Your task to perform on an android device: Open the Google play store app Image 0: 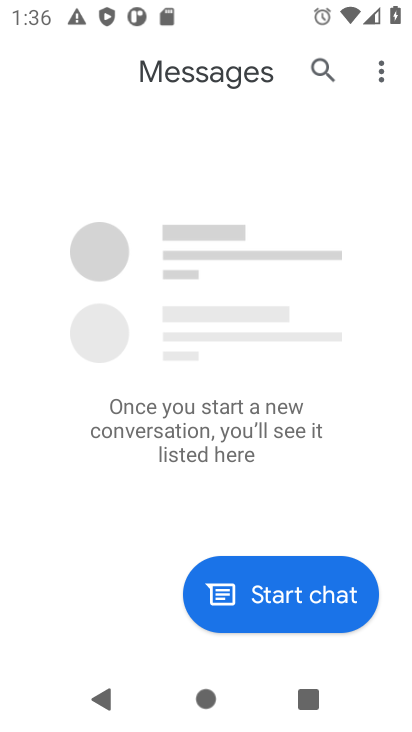
Step 0: press home button
Your task to perform on an android device: Open the Google play store app Image 1: 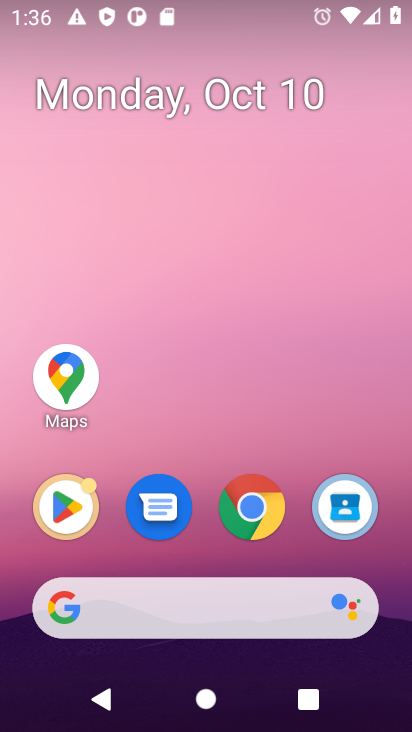
Step 1: drag from (393, 554) to (405, 232)
Your task to perform on an android device: Open the Google play store app Image 2: 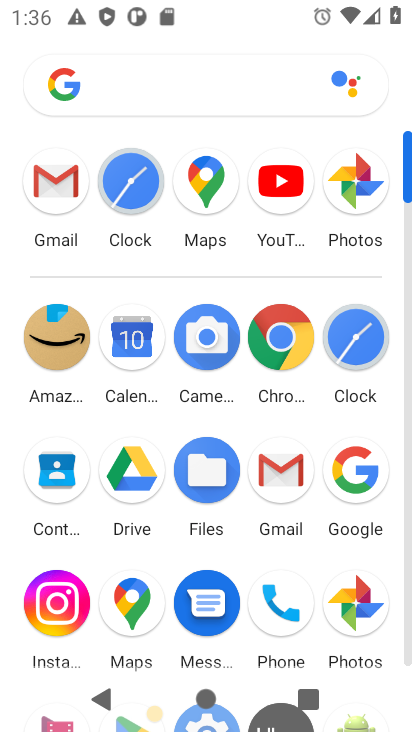
Step 2: drag from (386, 570) to (404, 273)
Your task to perform on an android device: Open the Google play store app Image 3: 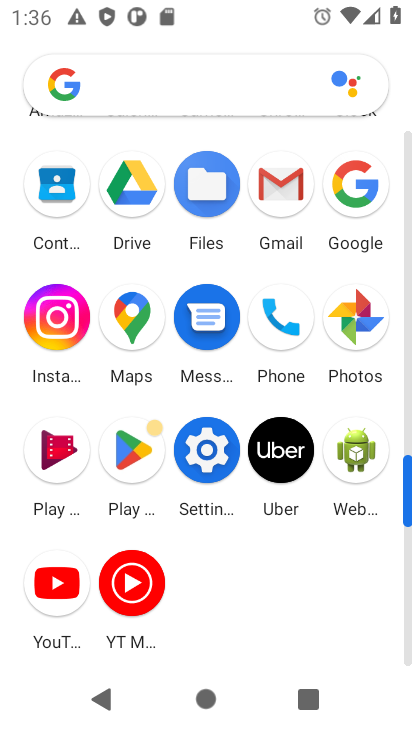
Step 3: click (136, 453)
Your task to perform on an android device: Open the Google play store app Image 4: 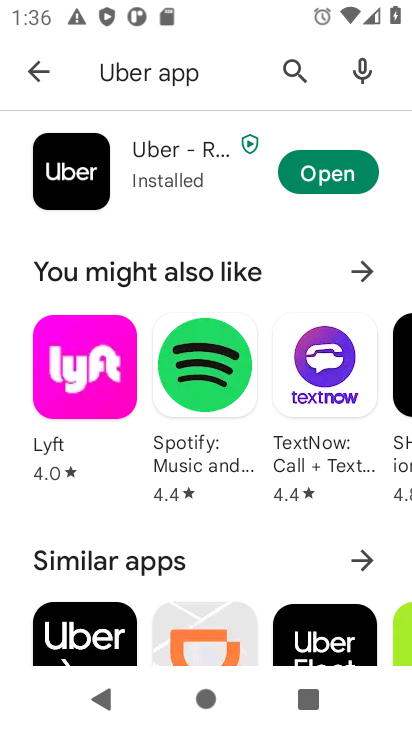
Step 4: task complete